Your task to perform on an android device: Open the map Image 0: 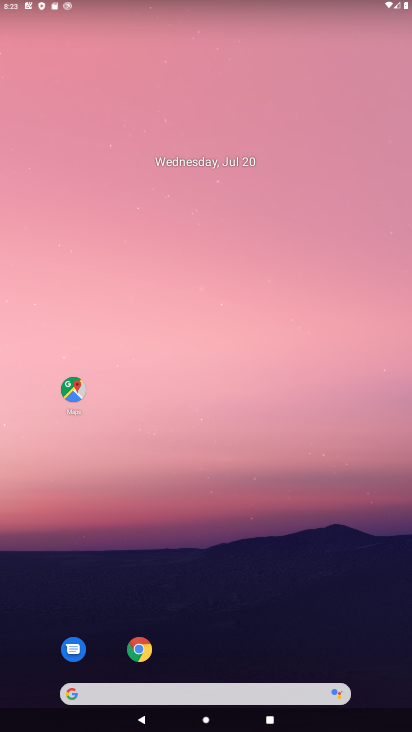
Step 0: click (72, 390)
Your task to perform on an android device: Open the map Image 1: 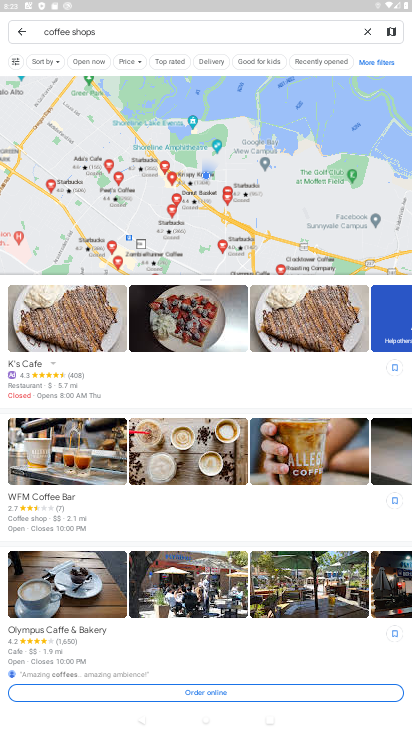
Step 1: task complete